Your task to perform on an android device: Search for vegetarian restaurants on Maps Image 0: 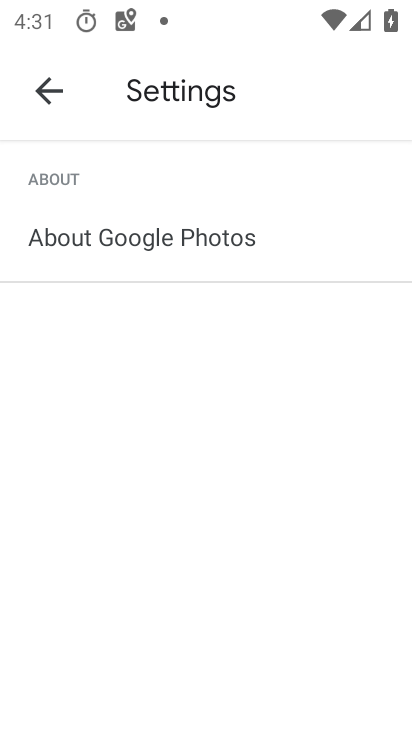
Step 0: press home button
Your task to perform on an android device: Search for vegetarian restaurants on Maps Image 1: 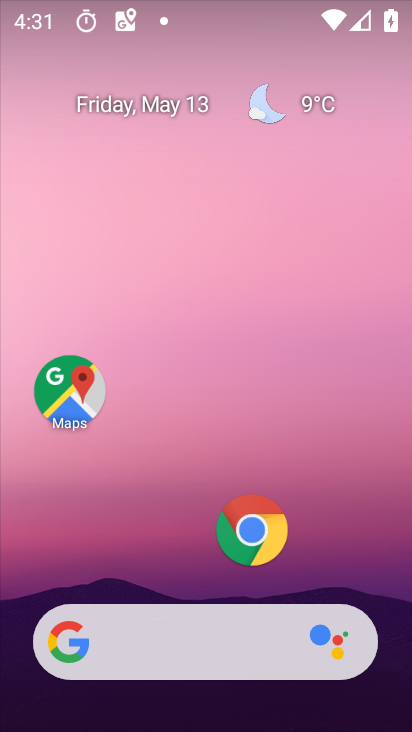
Step 1: click (66, 385)
Your task to perform on an android device: Search for vegetarian restaurants on Maps Image 2: 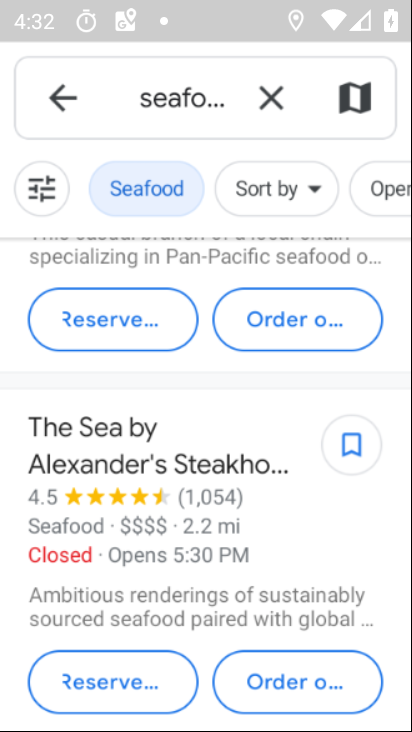
Step 2: click (280, 89)
Your task to perform on an android device: Search for vegetarian restaurants on Maps Image 3: 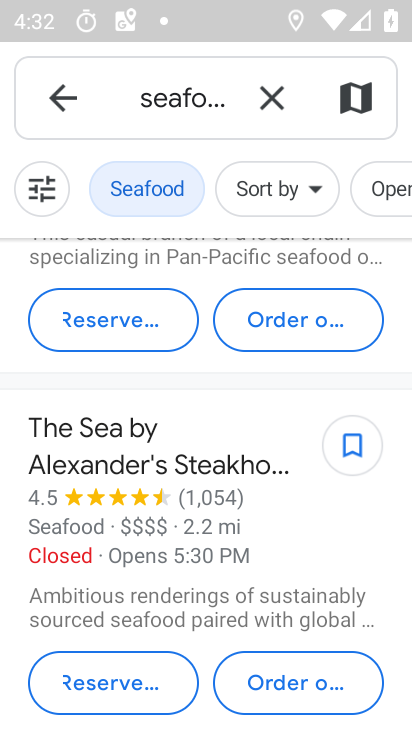
Step 3: click (266, 101)
Your task to perform on an android device: Search for vegetarian restaurants on Maps Image 4: 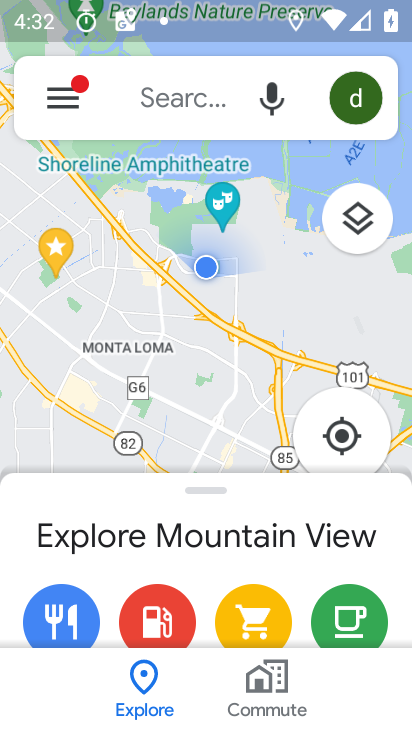
Step 4: click (137, 96)
Your task to perform on an android device: Search for vegetarian restaurants on Maps Image 5: 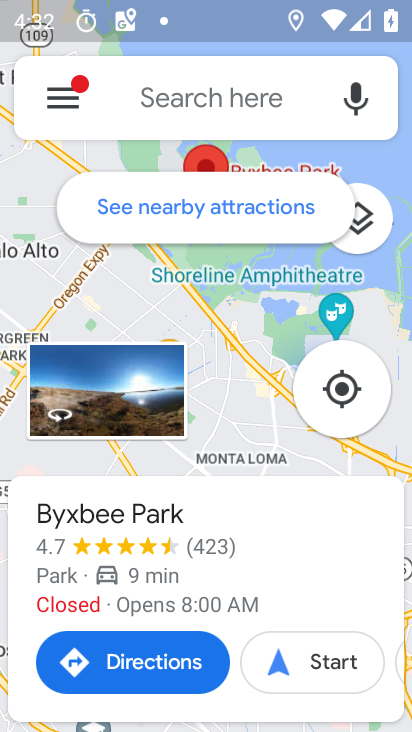
Step 5: click (168, 97)
Your task to perform on an android device: Search for vegetarian restaurants on Maps Image 6: 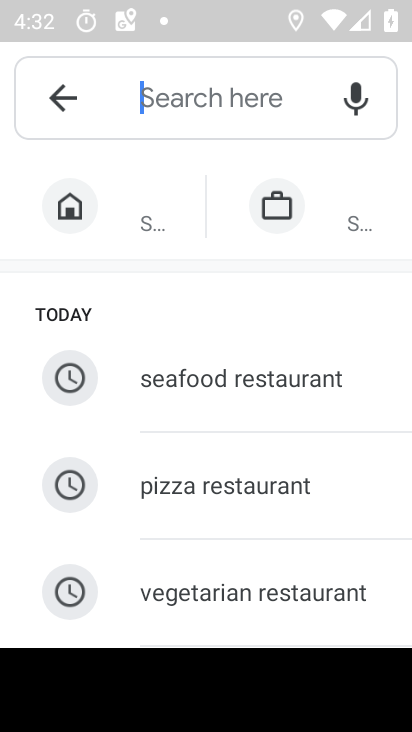
Step 6: click (205, 582)
Your task to perform on an android device: Search for vegetarian restaurants on Maps Image 7: 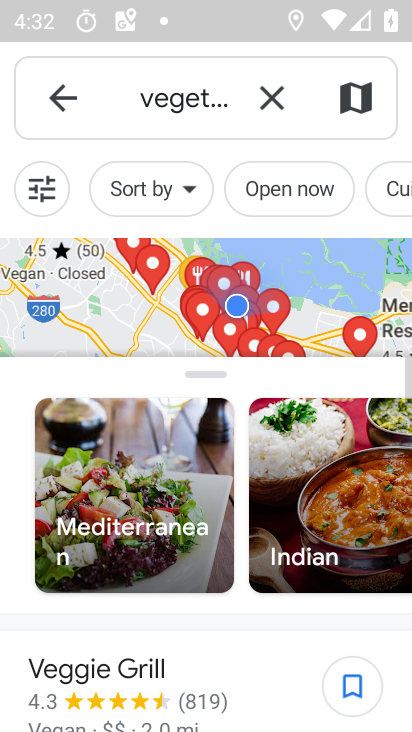
Step 7: task complete